Your task to perform on an android device: Go to Yahoo.com Image 0: 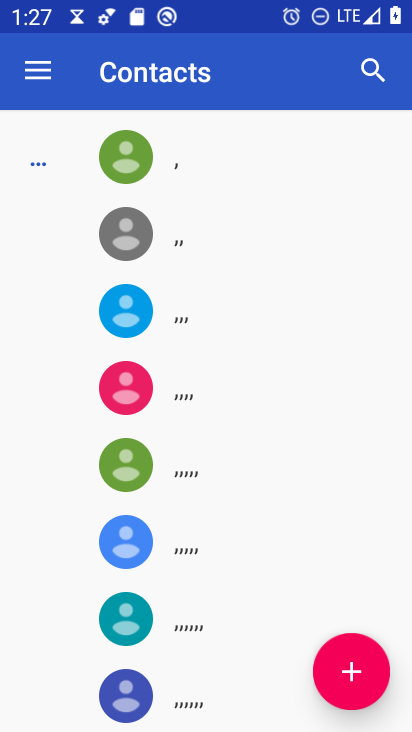
Step 0: press home button
Your task to perform on an android device: Go to Yahoo.com Image 1: 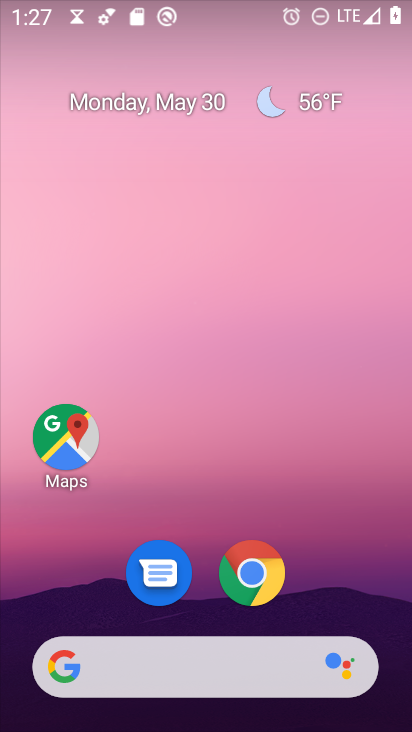
Step 1: drag from (287, 617) to (372, 0)
Your task to perform on an android device: Go to Yahoo.com Image 2: 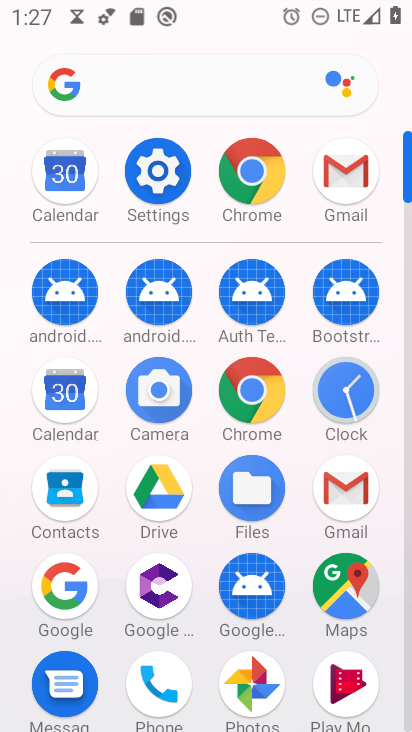
Step 2: click (239, 389)
Your task to perform on an android device: Go to Yahoo.com Image 3: 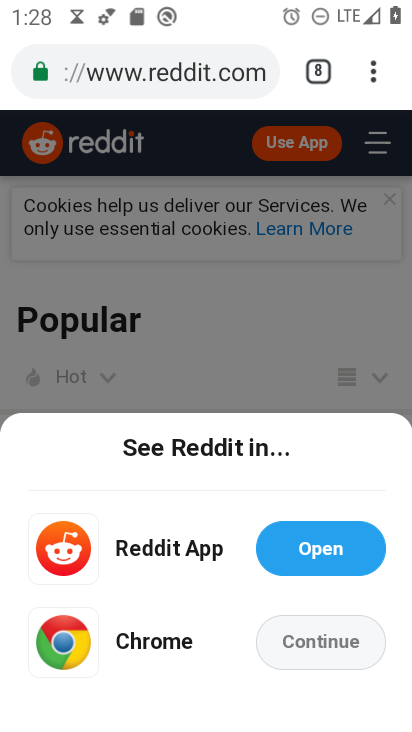
Step 3: click (376, 73)
Your task to perform on an android device: Go to Yahoo.com Image 4: 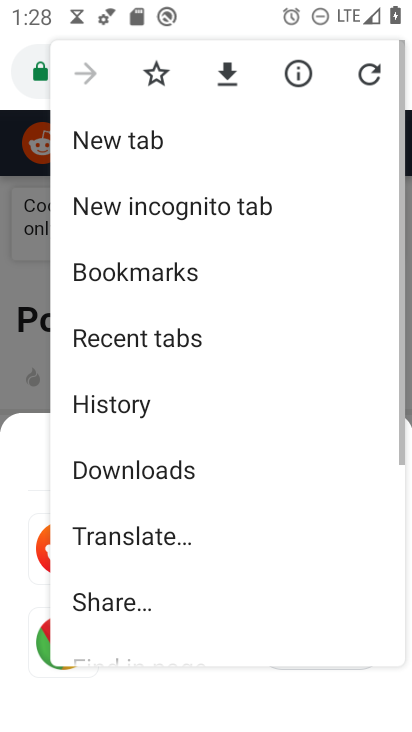
Step 4: click (236, 142)
Your task to perform on an android device: Go to Yahoo.com Image 5: 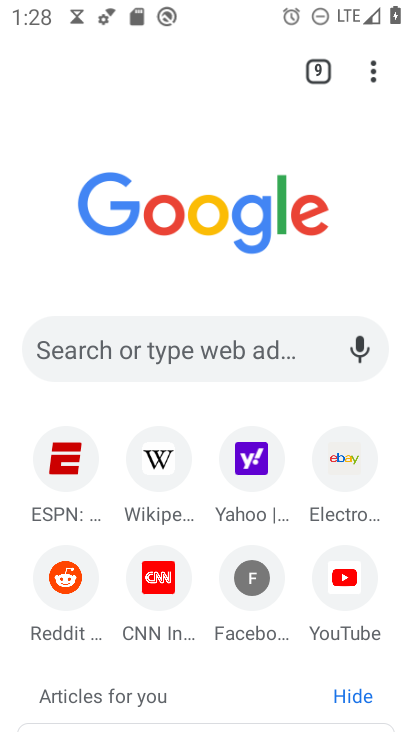
Step 5: click (242, 452)
Your task to perform on an android device: Go to Yahoo.com Image 6: 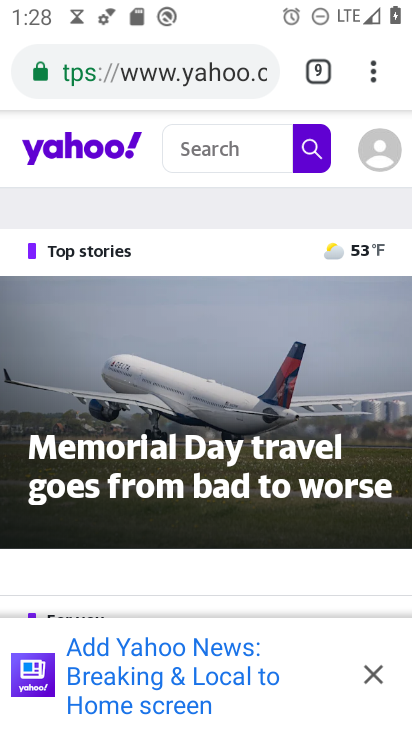
Step 6: task complete